Your task to perform on an android device: Open settings Image 0: 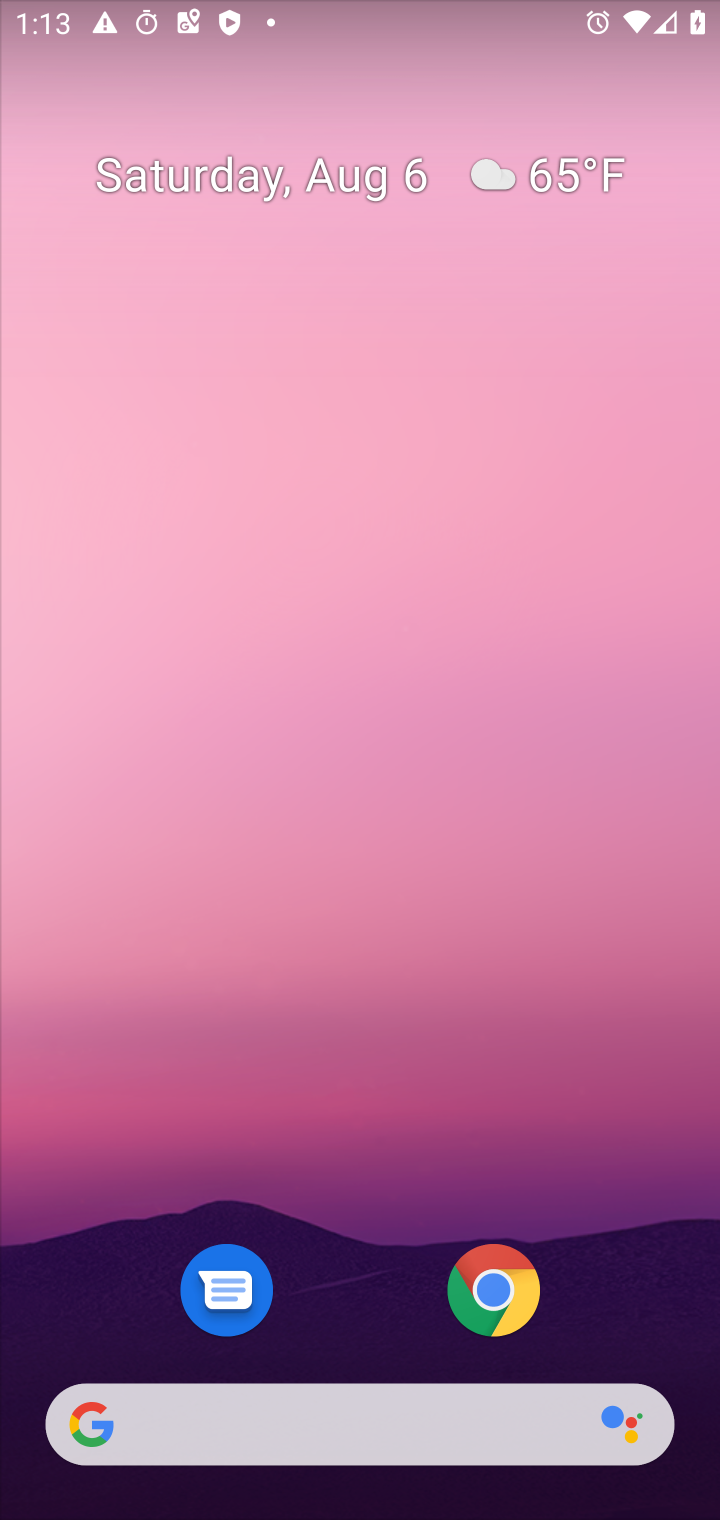
Step 0: drag from (357, 1270) to (474, 130)
Your task to perform on an android device: Open settings Image 1: 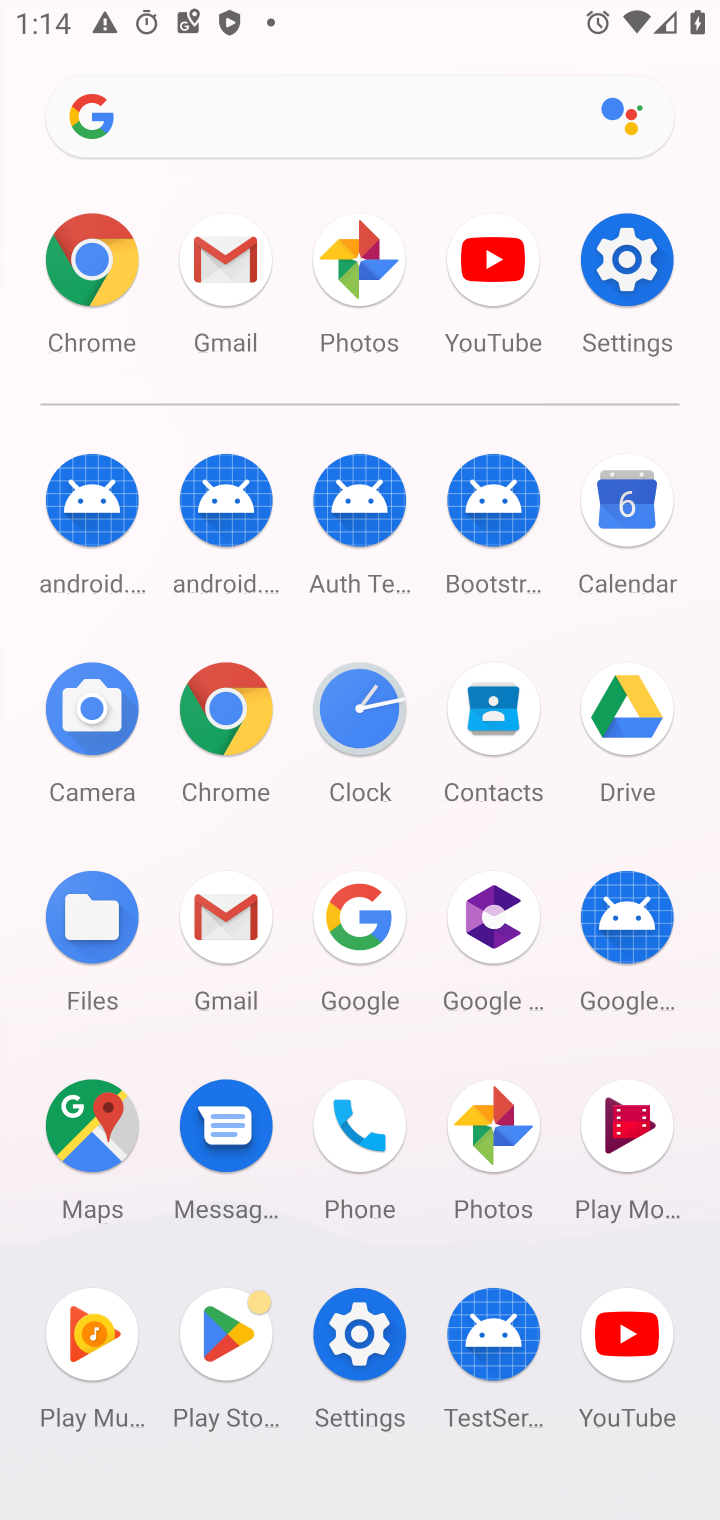
Step 1: click (358, 1316)
Your task to perform on an android device: Open settings Image 2: 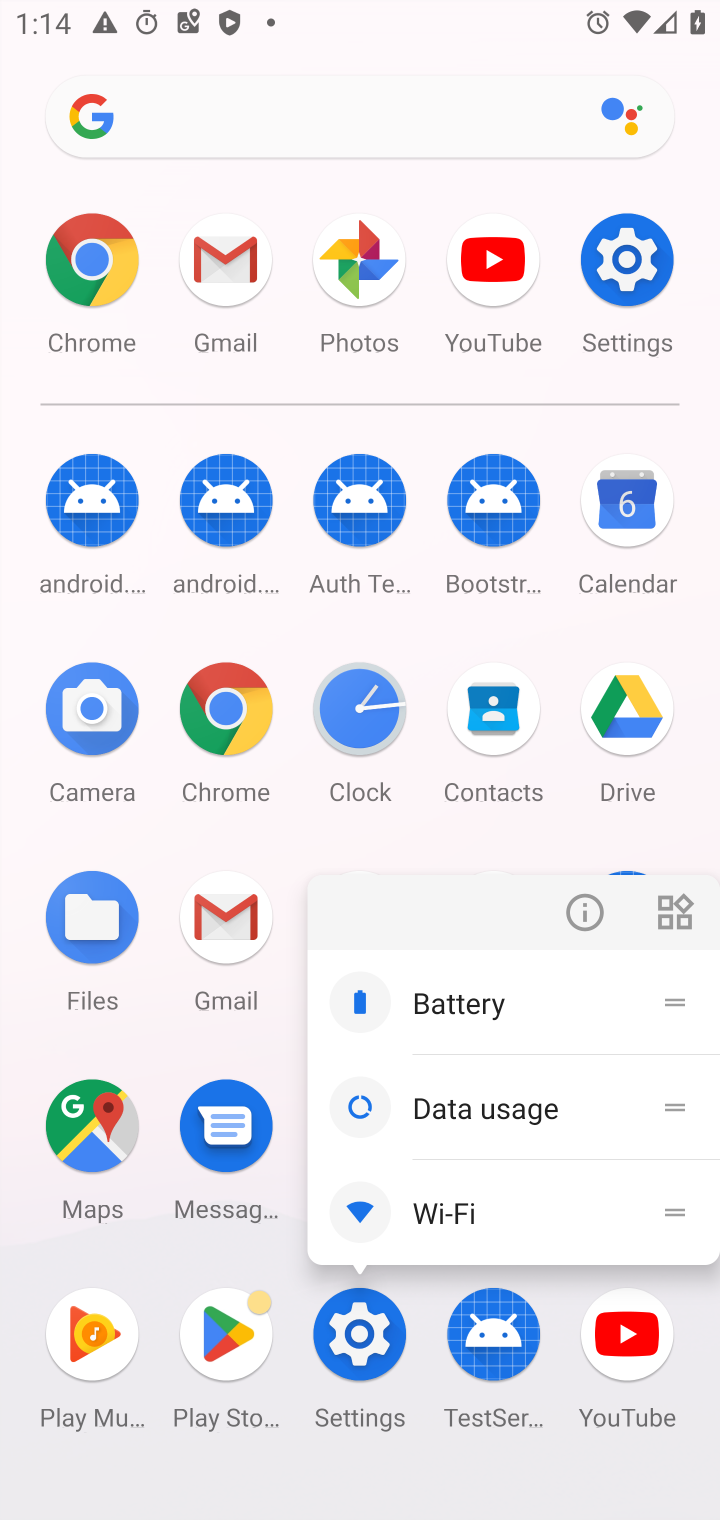
Step 2: click (350, 1320)
Your task to perform on an android device: Open settings Image 3: 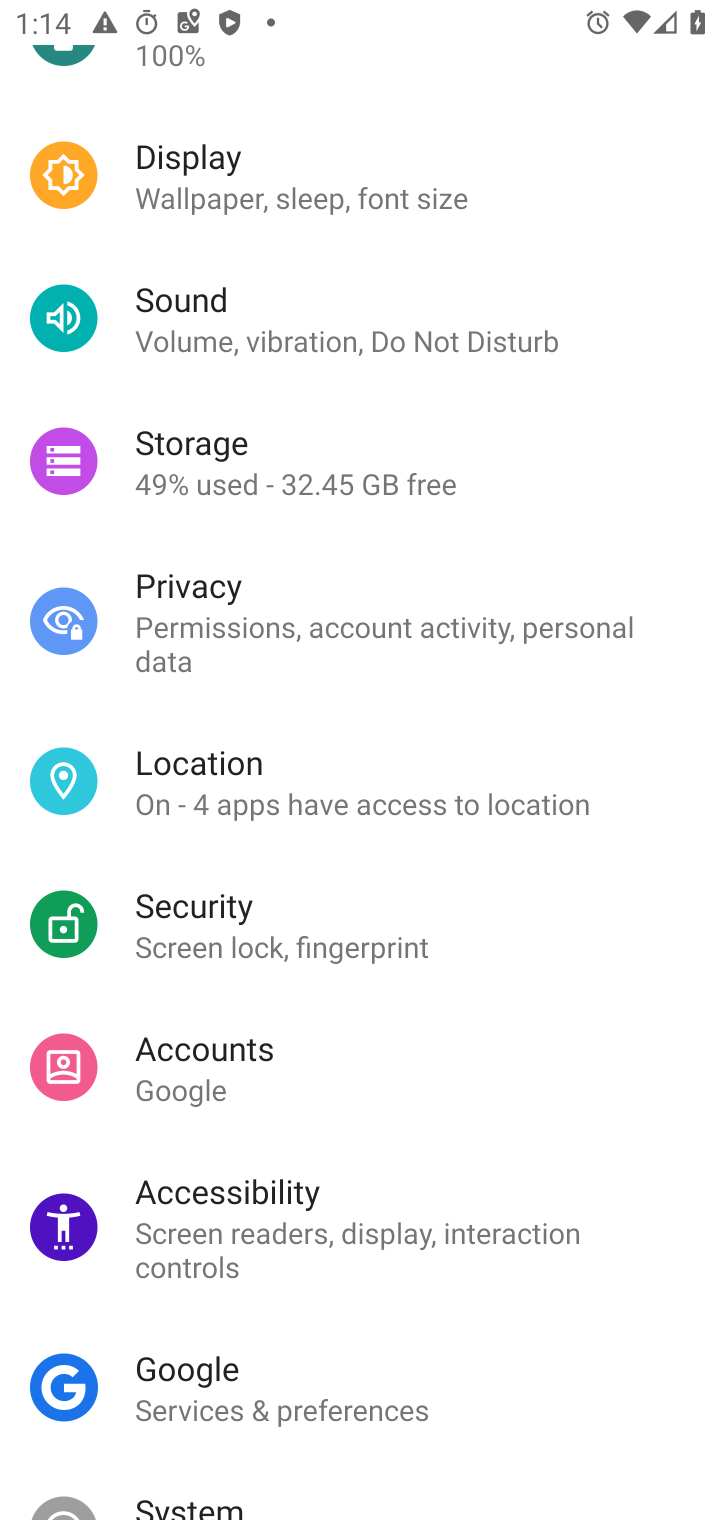
Step 3: task complete